Your task to perform on an android device: open wifi settings Image 0: 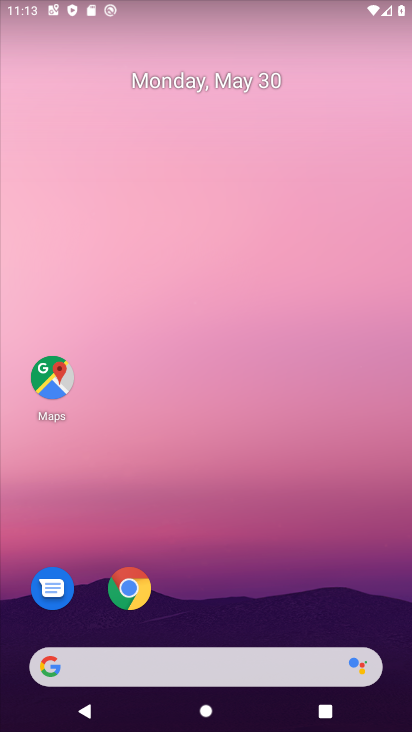
Step 0: press home button
Your task to perform on an android device: open wifi settings Image 1: 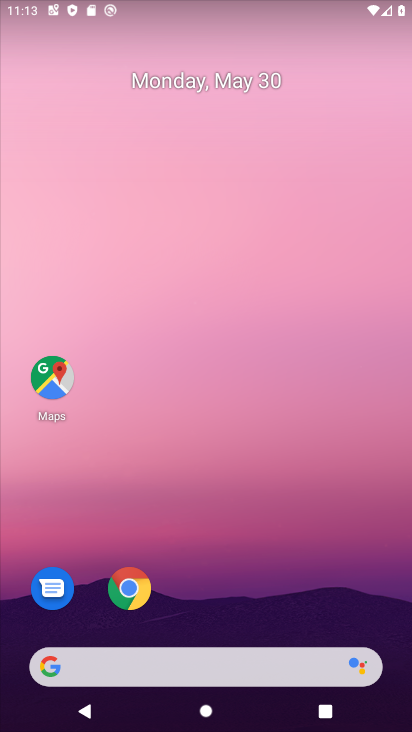
Step 1: drag from (212, 626) to (232, 11)
Your task to perform on an android device: open wifi settings Image 2: 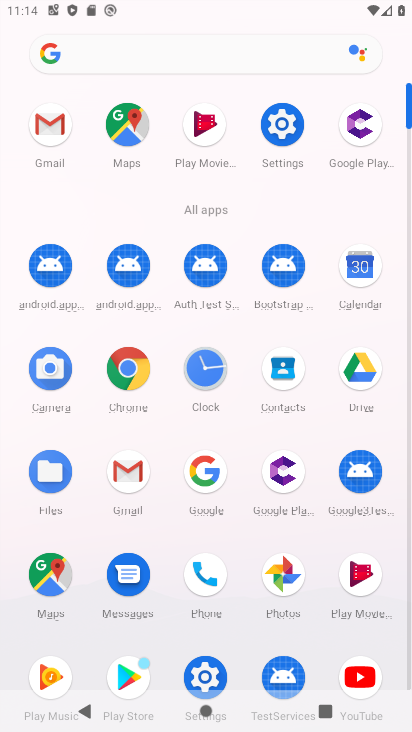
Step 2: click (283, 118)
Your task to perform on an android device: open wifi settings Image 3: 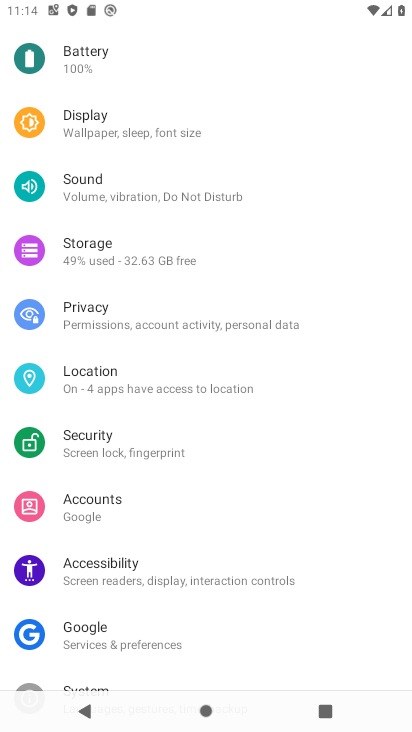
Step 3: drag from (190, 113) to (200, 640)
Your task to perform on an android device: open wifi settings Image 4: 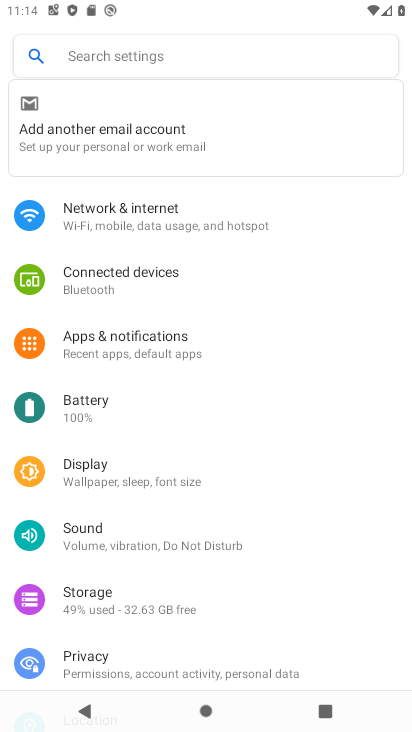
Step 4: click (195, 208)
Your task to perform on an android device: open wifi settings Image 5: 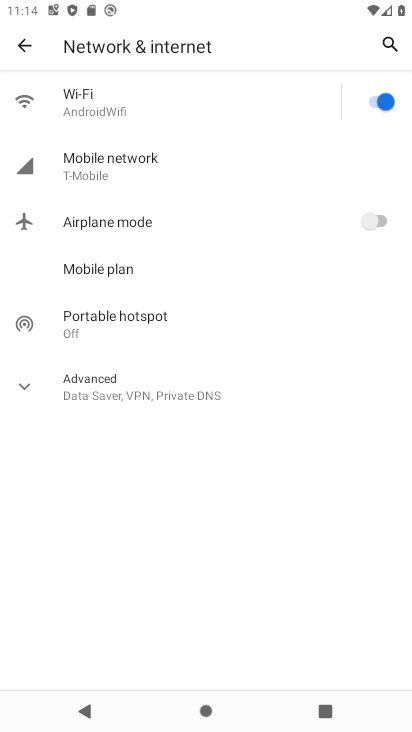
Step 5: click (193, 96)
Your task to perform on an android device: open wifi settings Image 6: 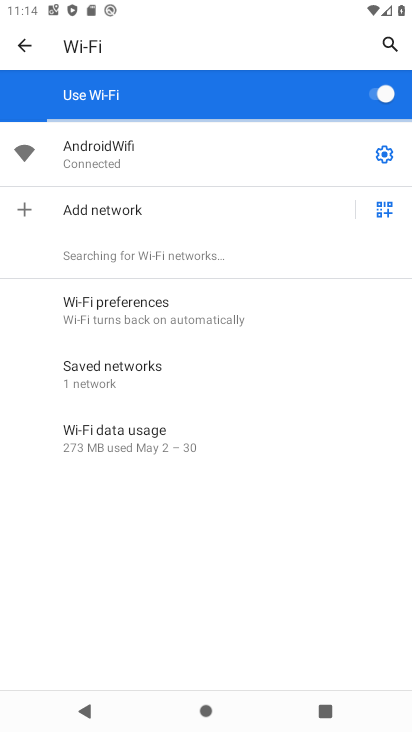
Step 6: task complete